Your task to perform on an android device: Open internet settings Image 0: 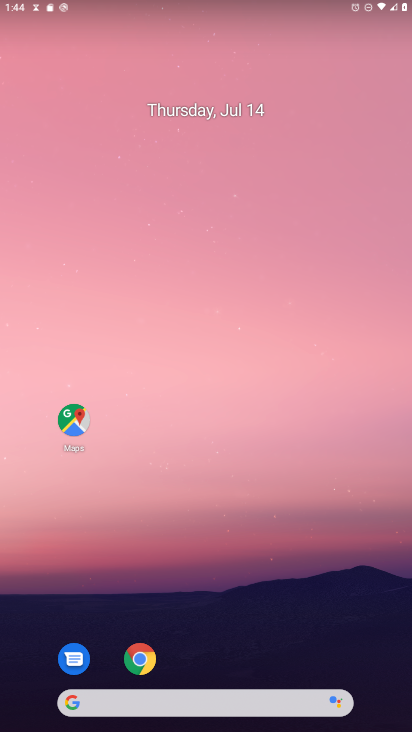
Step 0: click (100, 704)
Your task to perform on an android device: Open internet settings Image 1: 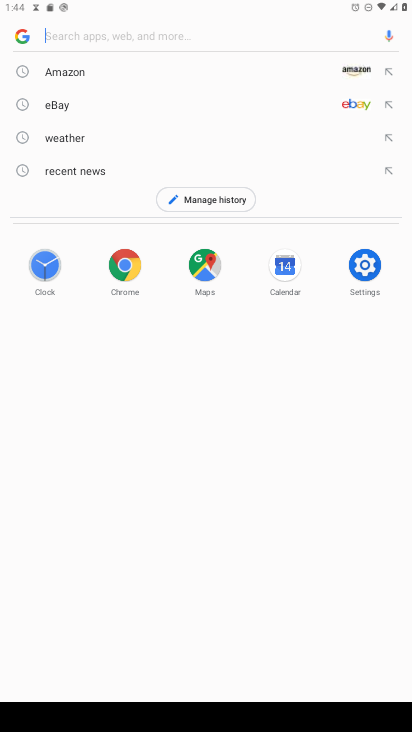
Step 1: press home button
Your task to perform on an android device: Open internet settings Image 2: 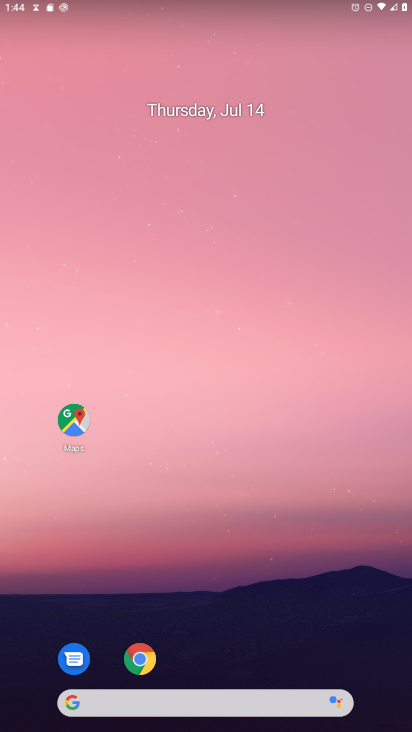
Step 2: drag from (22, 708) to (234, 42)
Your task to perform on an android device: Open internet settings Image 3: 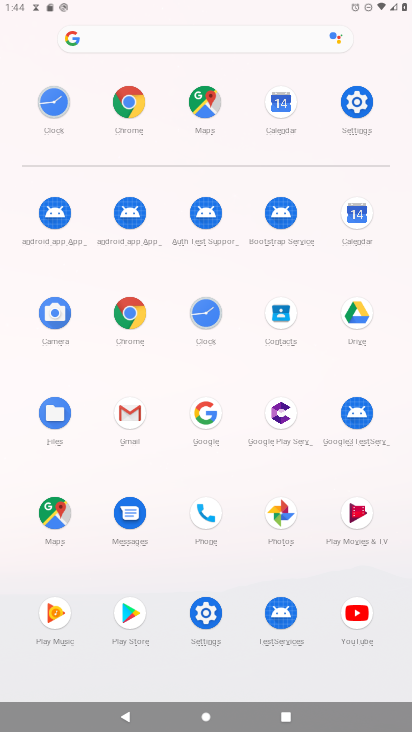
Step 3: click (202, 619)
Your task to perform on an android device: Open internet settings Image 4: 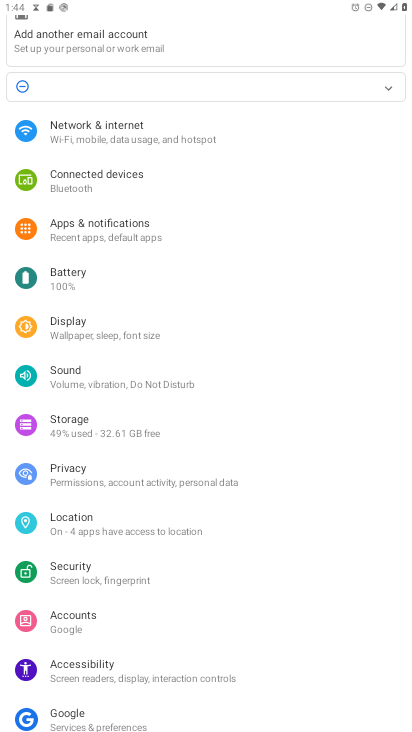
Step 4: click (119, 116)
Your task to perform on an android device: Open internet settings Image 5: 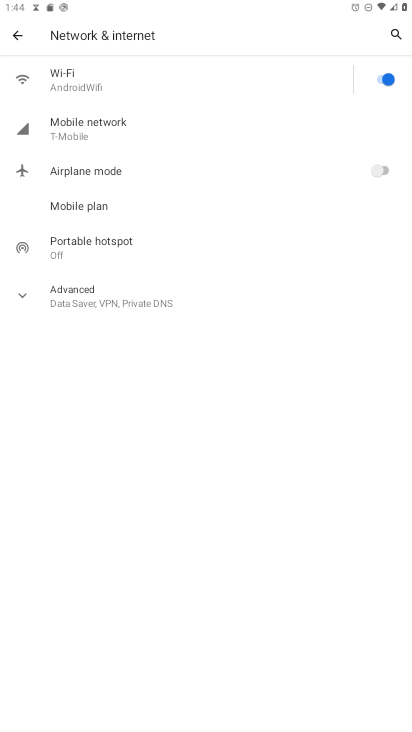
Step 5: task complete